Your task to perform on an android device: turn off javascript in the chrome app Image 0: 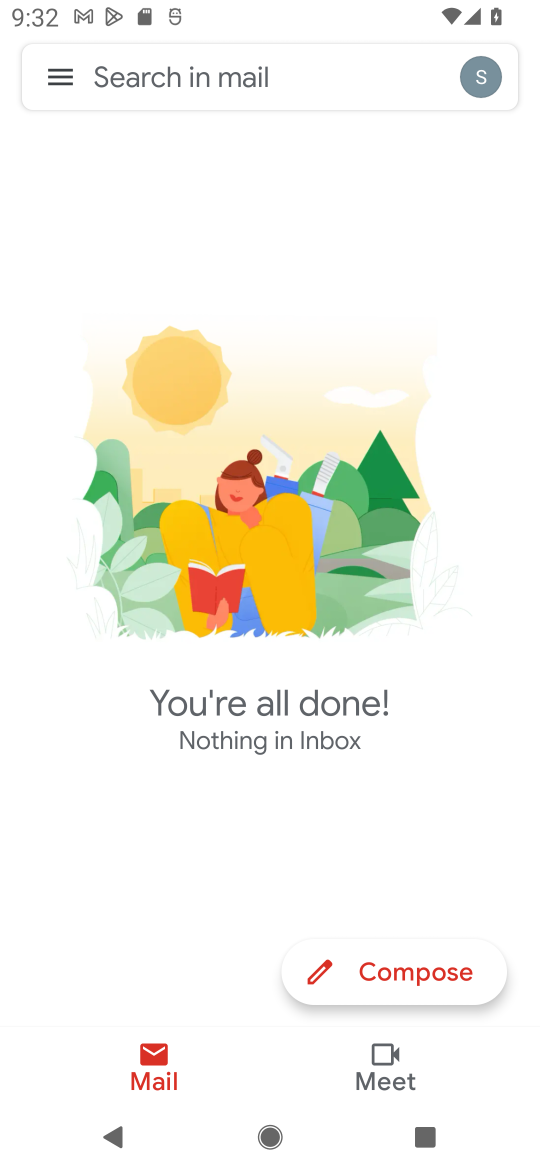
Step 0: press home button
Your task to perform on an android device: turn off javascript in the chrome app Image 1: 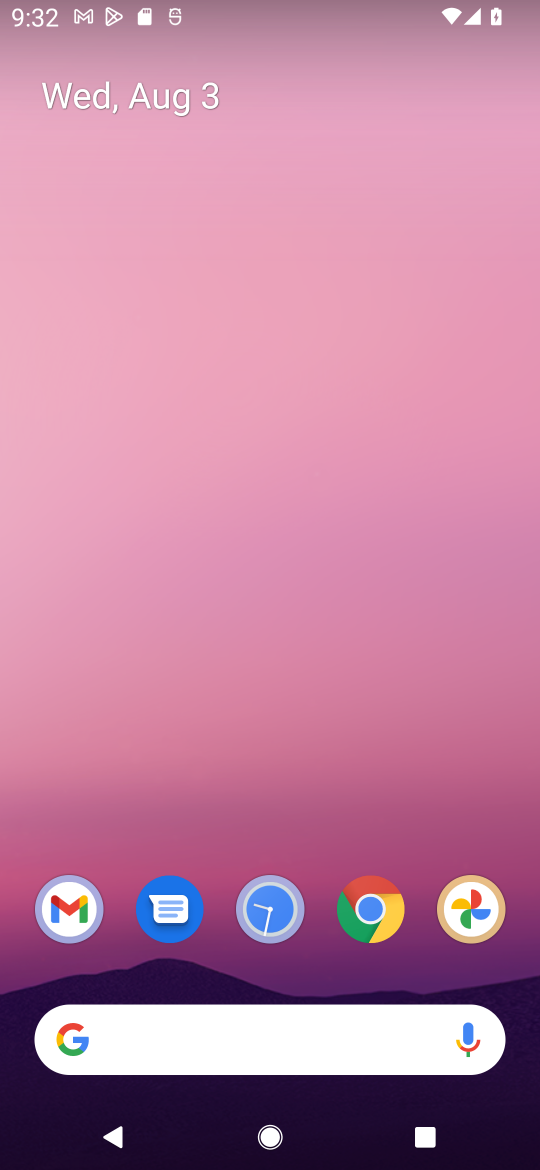
Step 1: drag from (363, 806) to (443, 312)
Your task to perform on an android device: turn off javascript in the chrome app Image 2: 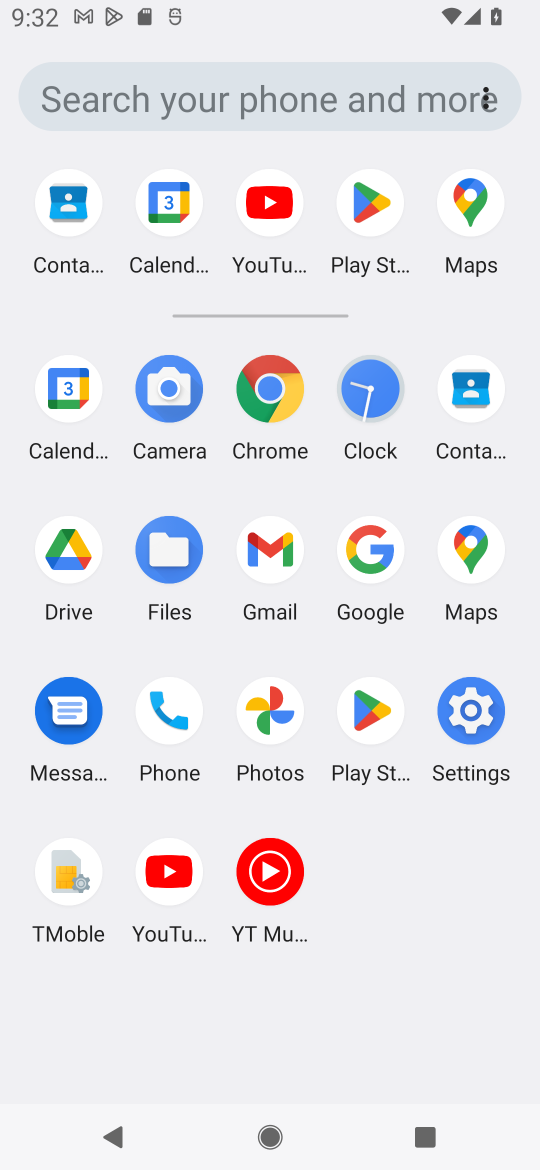
Step 2: click (277, 395)
Your task to perform on an android device: turn off javascript in the chrome app Image 3: 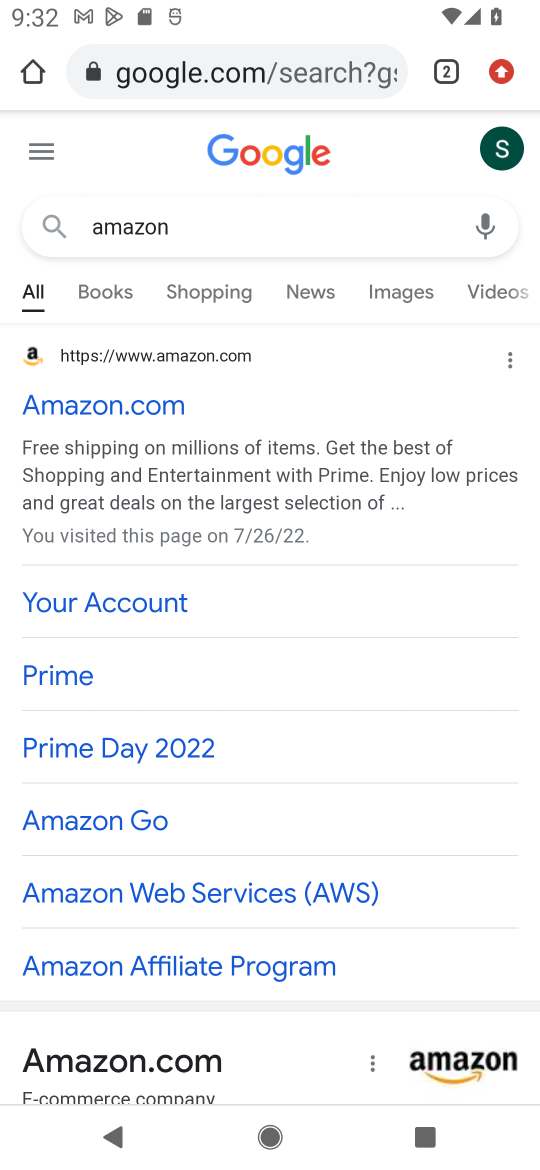
Step 3: click (503, 68)
Your task to perform on an android device: turn off javascript in the chrome app Image 4: 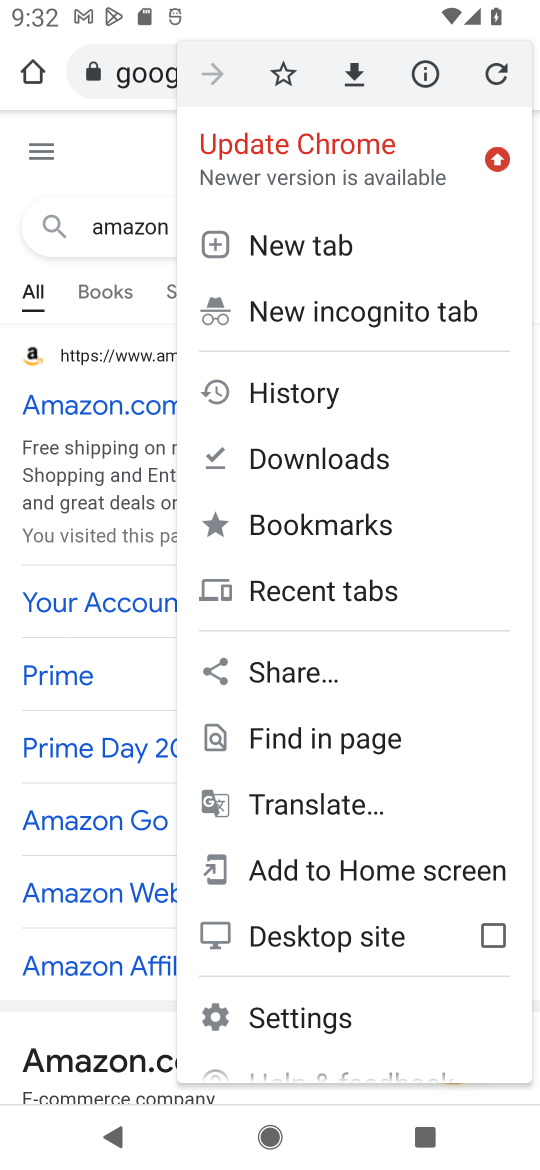
Step 4: click (340, 1022)
Your task to perform on an android device: turn off javascript in the chrome app Image 5: 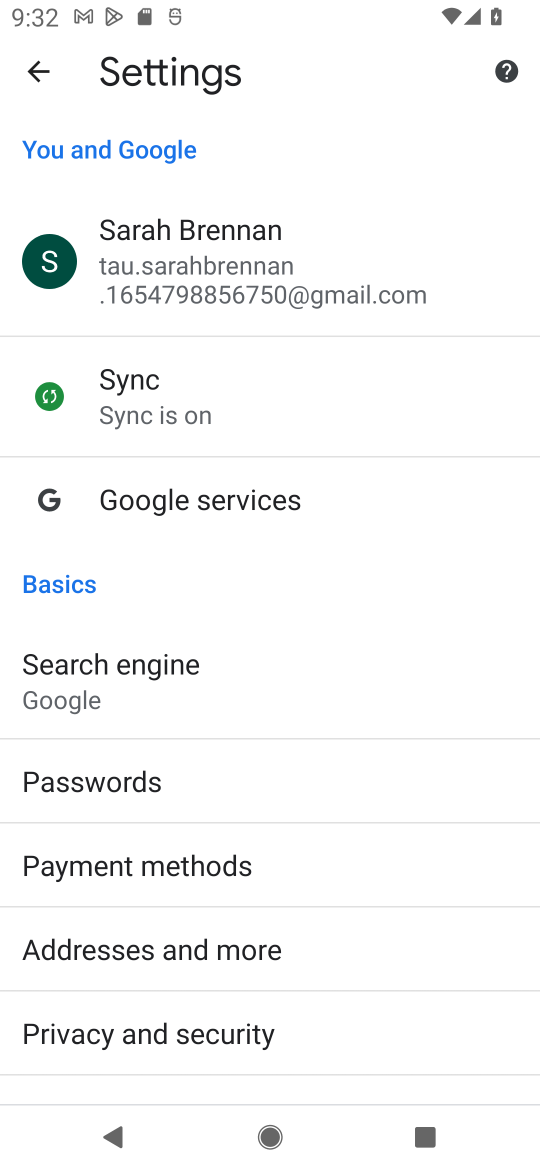
Step 5: drag from (366, 1009) to (379, 778)
Your task to perform on an android device: turn off javascript in the chrome app Image 6: 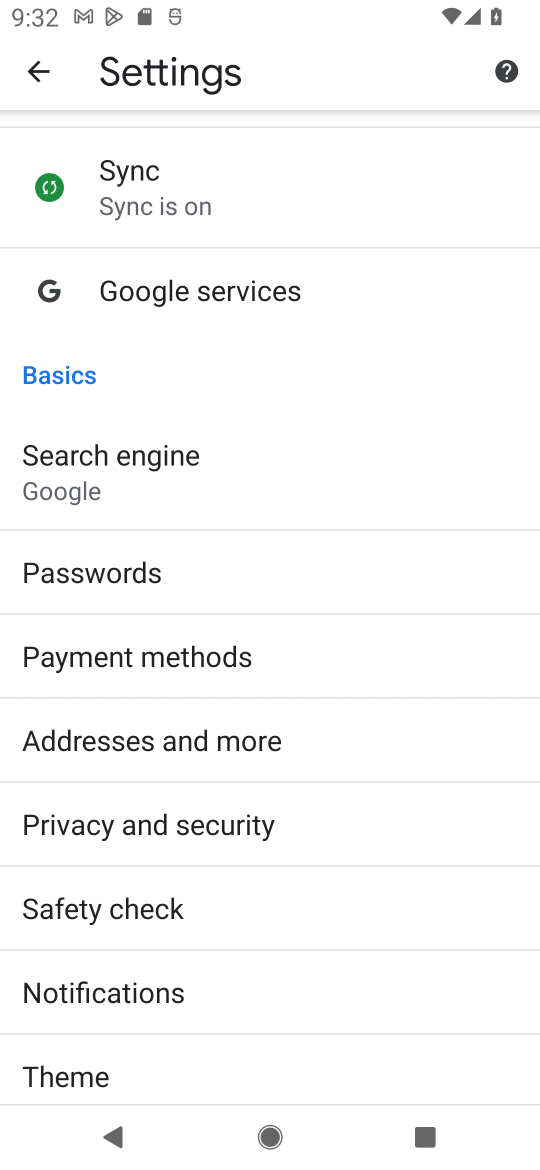
Step 6: drag from (372, 1010) to (392, 707)
Your task to perform on an android device: turn off javascript in the chrome app Image 7: 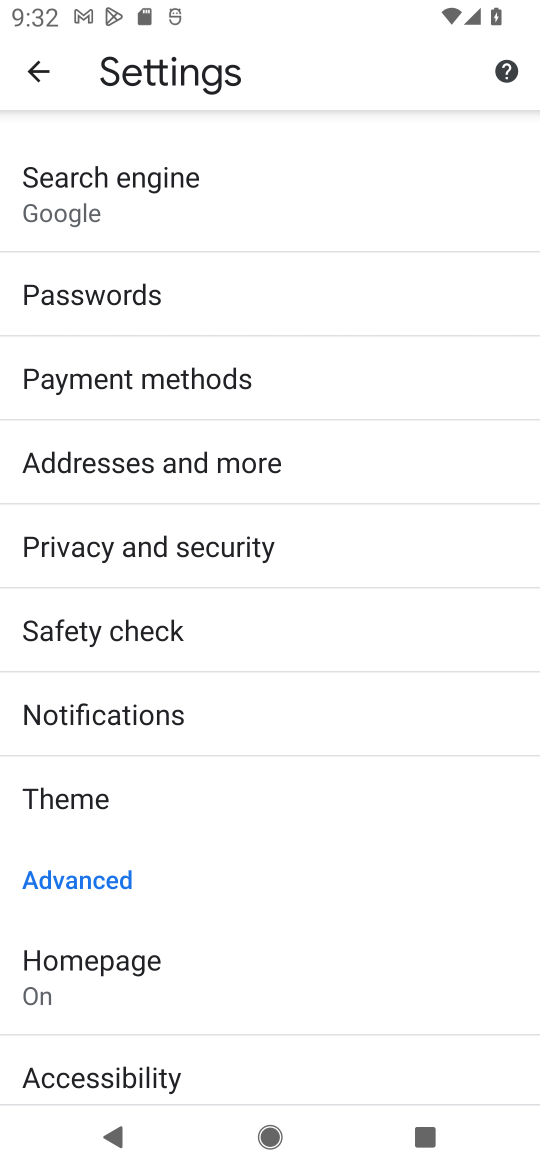
Step 7: drag from (345, 964) to (360, 660)
Your task to perform on an android device: turn off javascript in the chrome app Image 8: 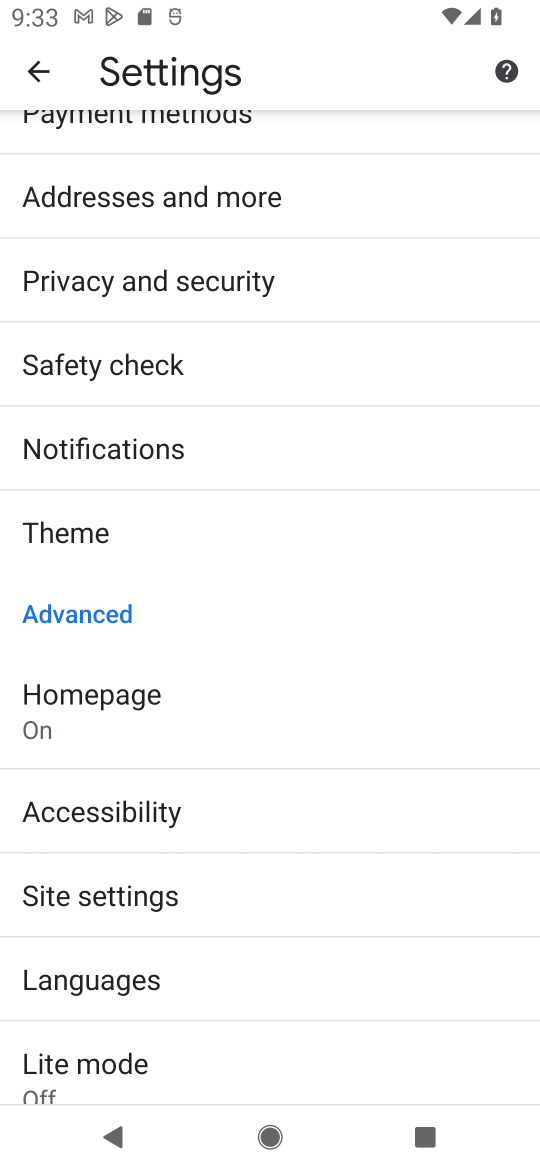
Step 8: click (287, 886)
Your task to perform on an android device: turn off javascript in the chrome app Image 9: 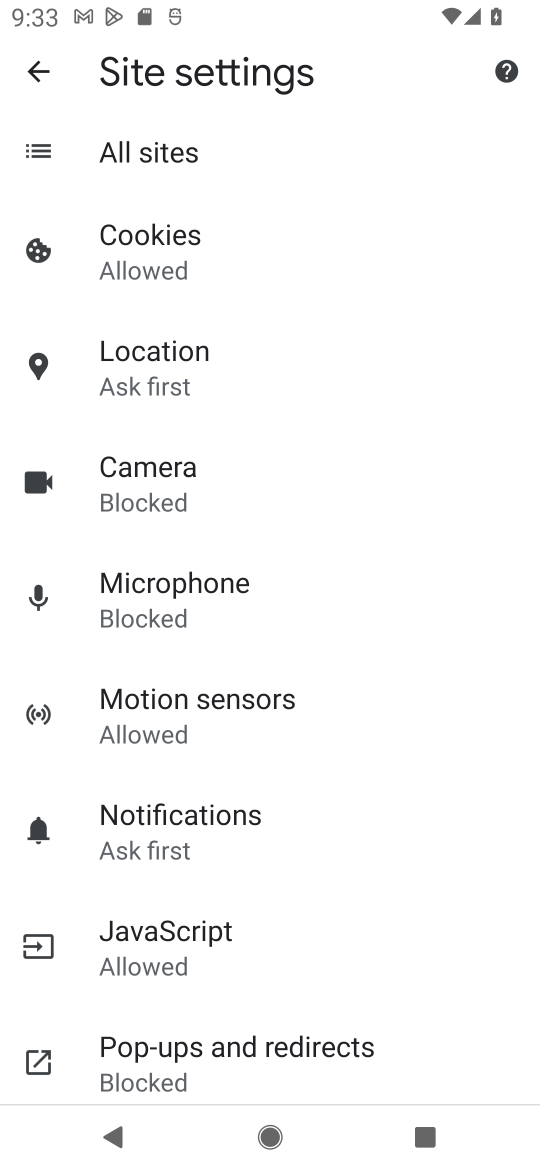
Step 9: click (217, 958)
Your task to perform on an android device: turn off javascript in the chrome app Image 10: 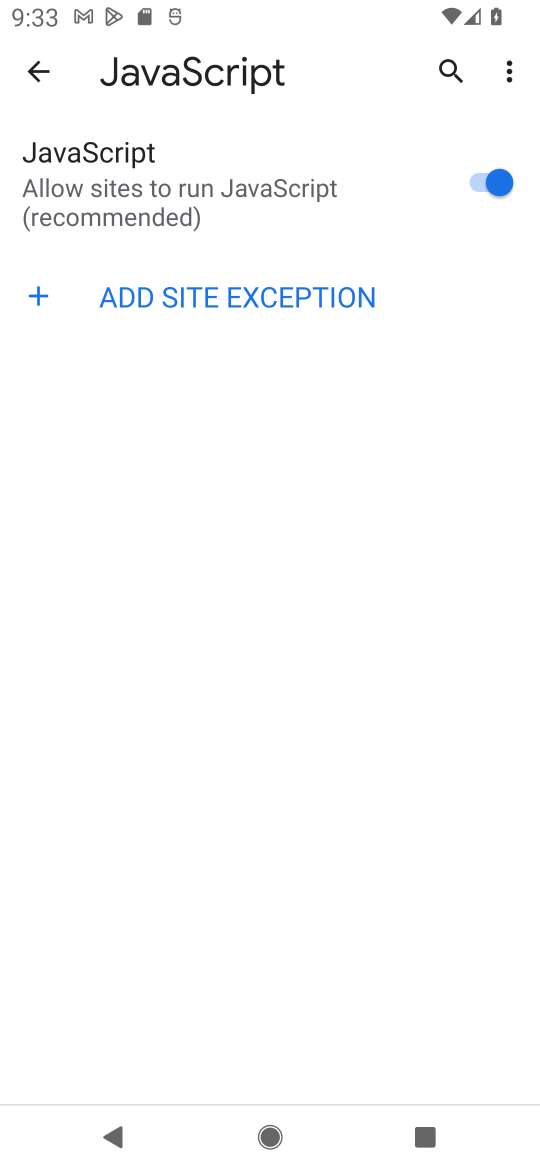
Step 10: click (497, 182)
Your task to perform on an android device: turn off javascript in the chrome app Image 11: 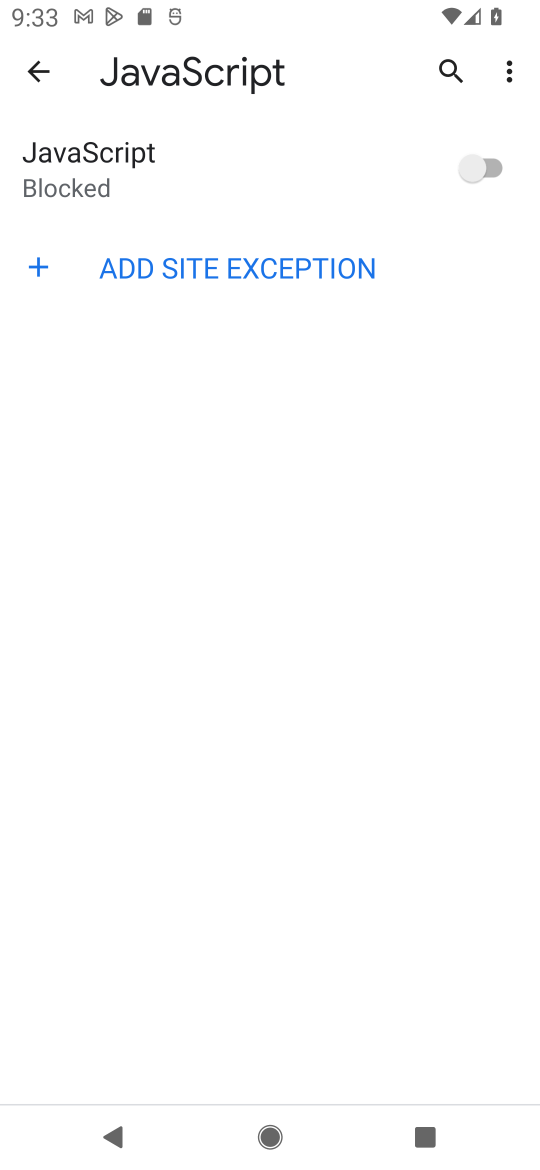
Step 11: task complete